Your task to perform on an android device: change the clock display to digital Image 0: 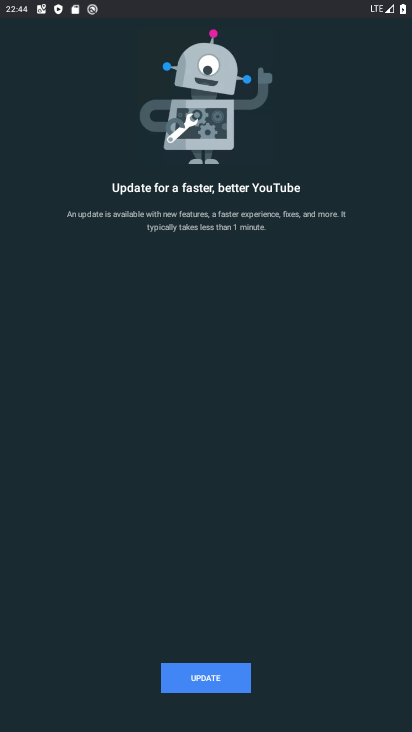
Step 0: press home button
Your task to perform on an android device: change the clock display to digital Image 1: 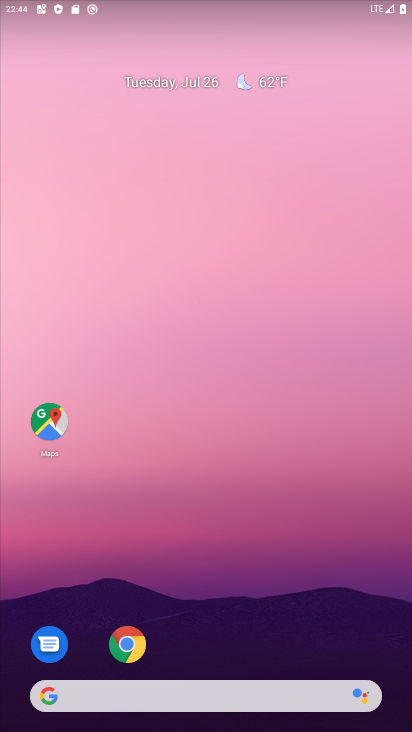
Step 1: drag from (246, 606) to (259, 32)
Your task to perform on an android device: change the clock display to digital Image 2: 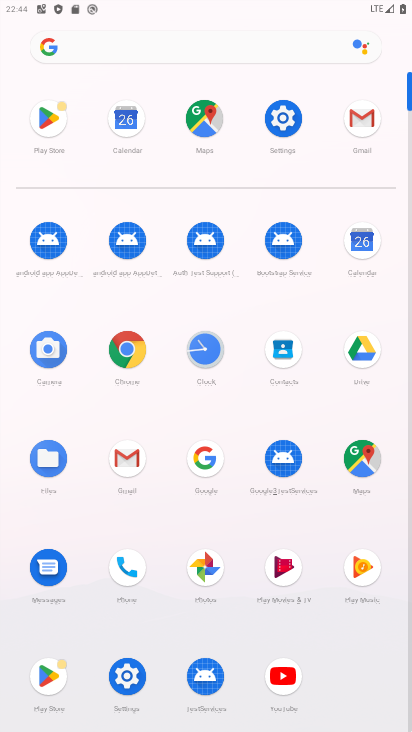
Step 2: click (198, 356)
Your task to perform on an android device: change the clock display to digital Image 3: 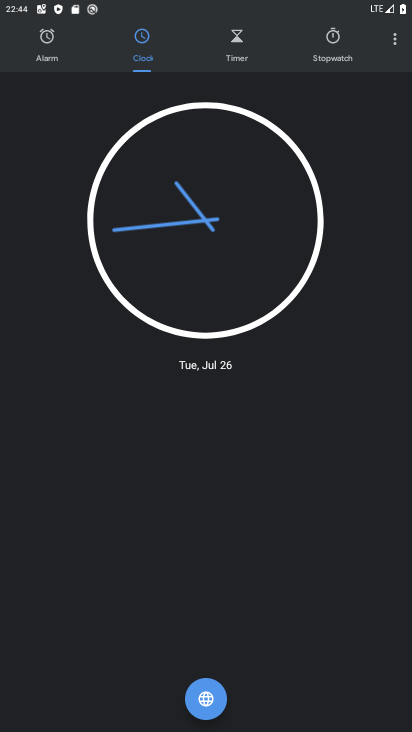
Step 3: click (398, 51)
Your task to perform on an android device: change the clock display to digital Image 4: 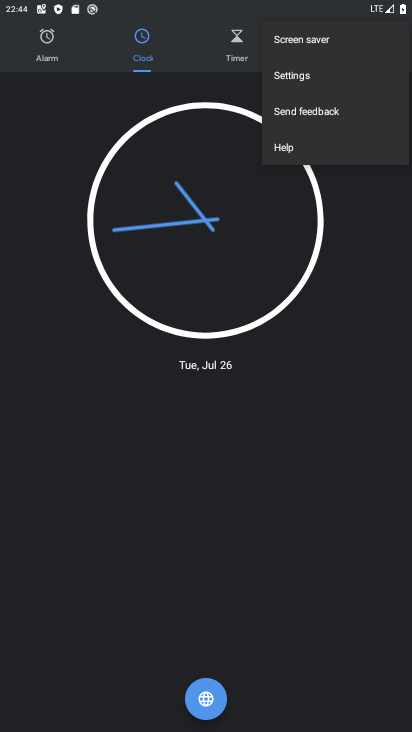
Step 4: click (285, 80)
Your task to perform on an android device: change the clock display to digital Image 5: 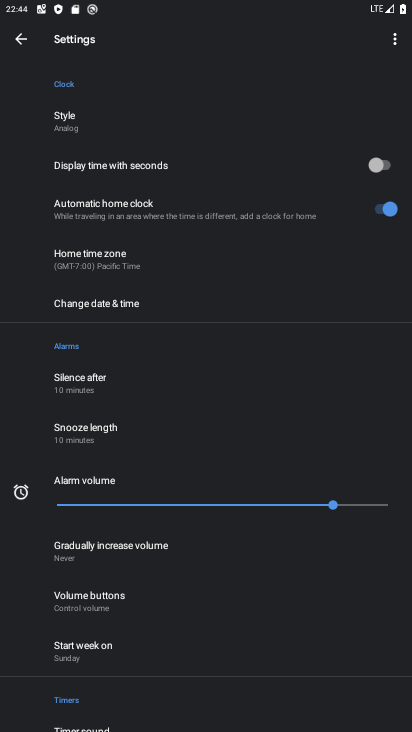
Step 5: click (59, 127)
Your task to perform on an android device: change the clock display to digital Image 6: 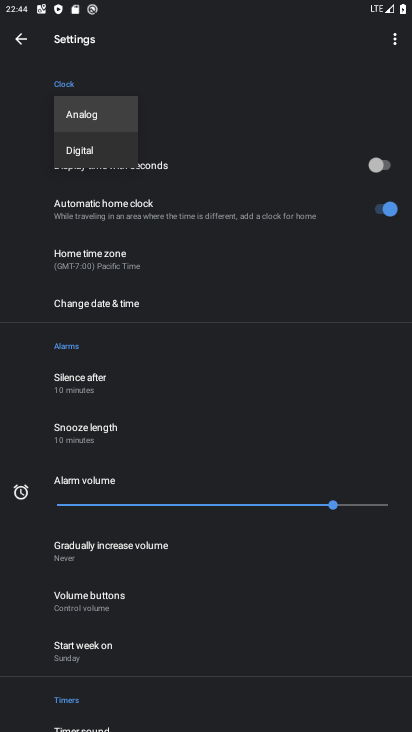
Step 6: click (71, 160)
Your task to perform on an android device: change the clock display to digital Image 7: 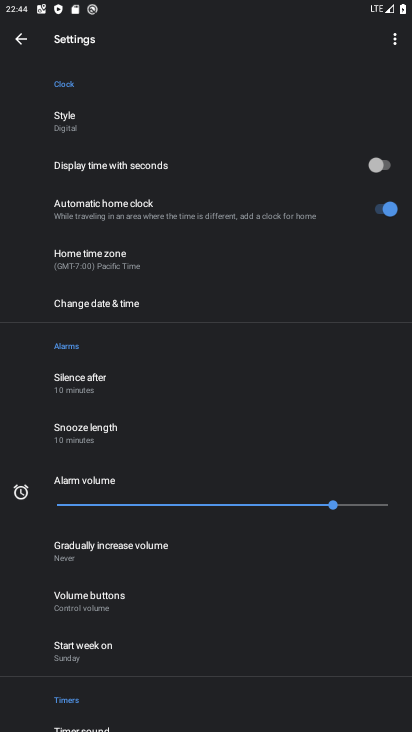
Step 7: task complete